Your task to perform on an android device: Open Reddit.com Image 0: 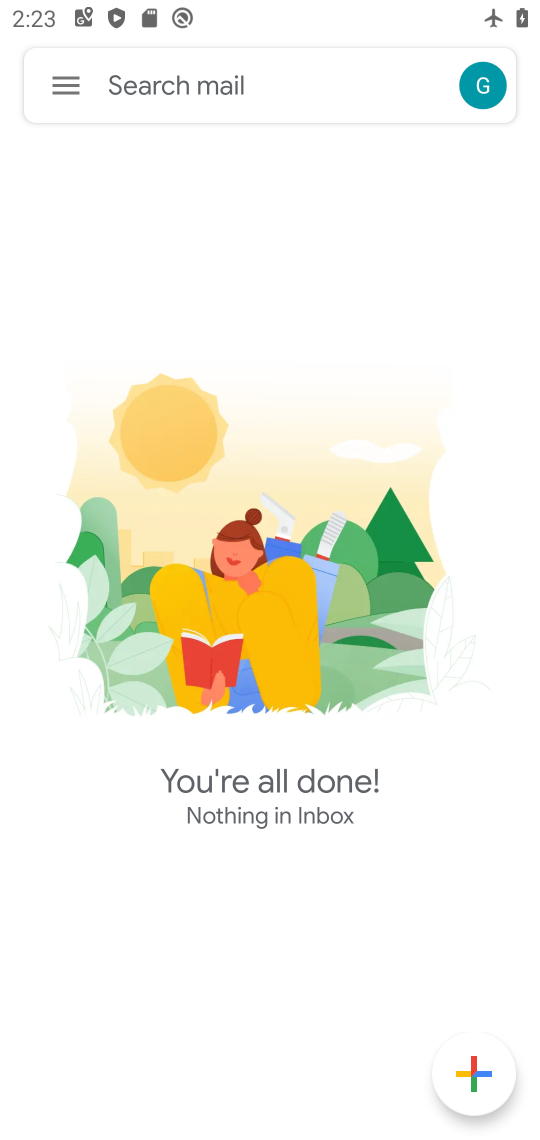
Step 0: press home button
Your task to perform on an android device: Open Reddit.com Image 1: 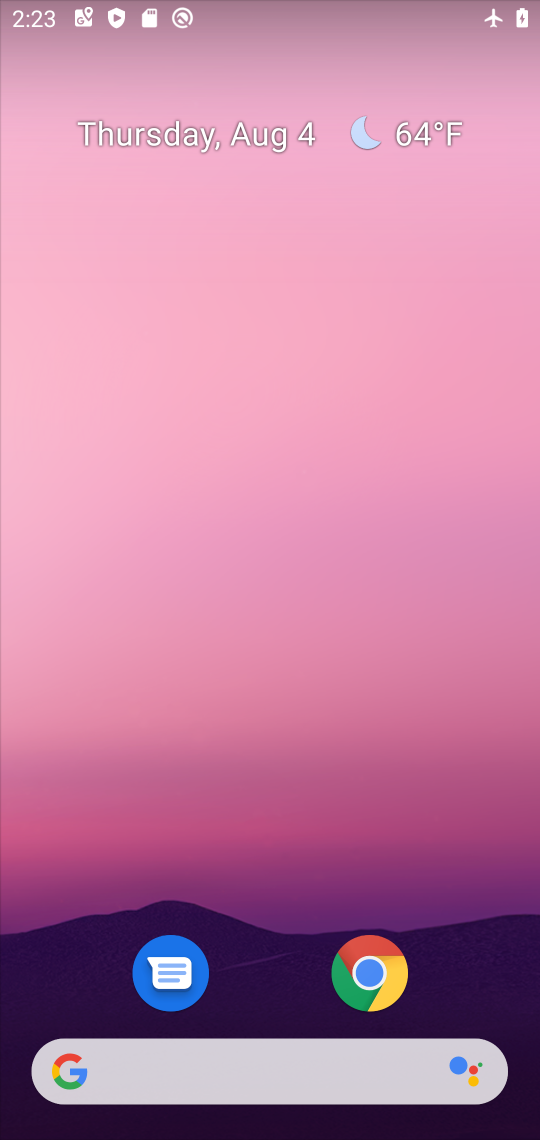
Step 1: click (407, 965)
Your task to perform on an android device: Open Reddit.com Image 2: 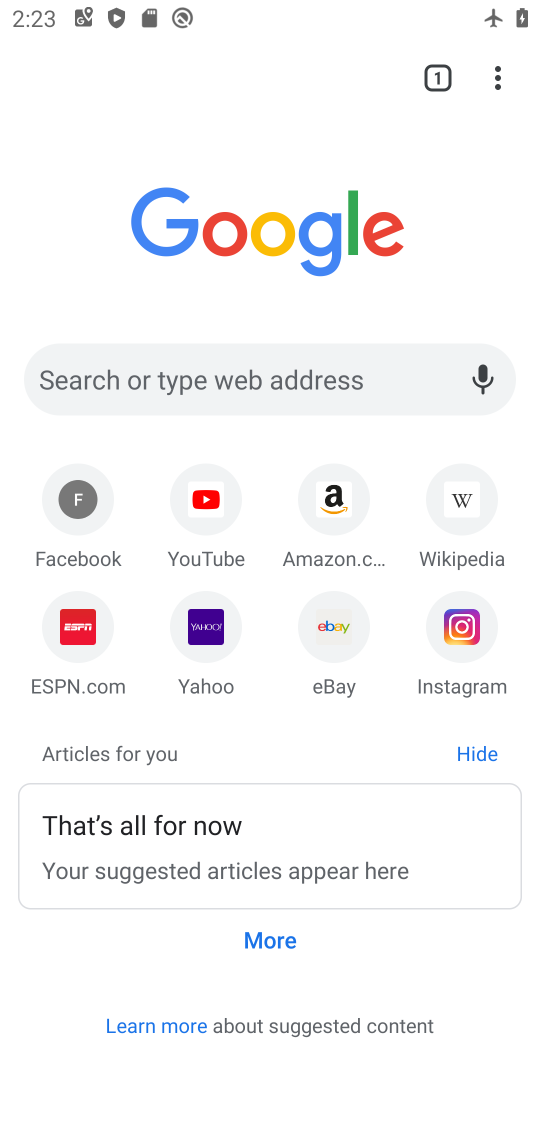
Step 2: click (247, 370)
Your task to perform on an android device: Open Reddit.com Image 3: 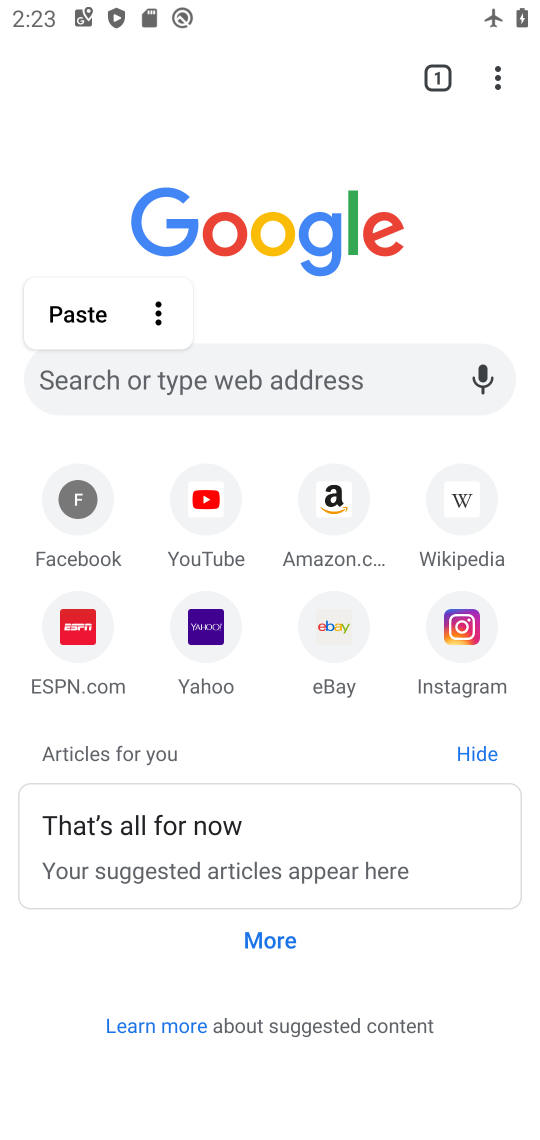
Step 3: type "Reddit.com"
Your task to perform on an android device: Open Reddit.com Image 4: 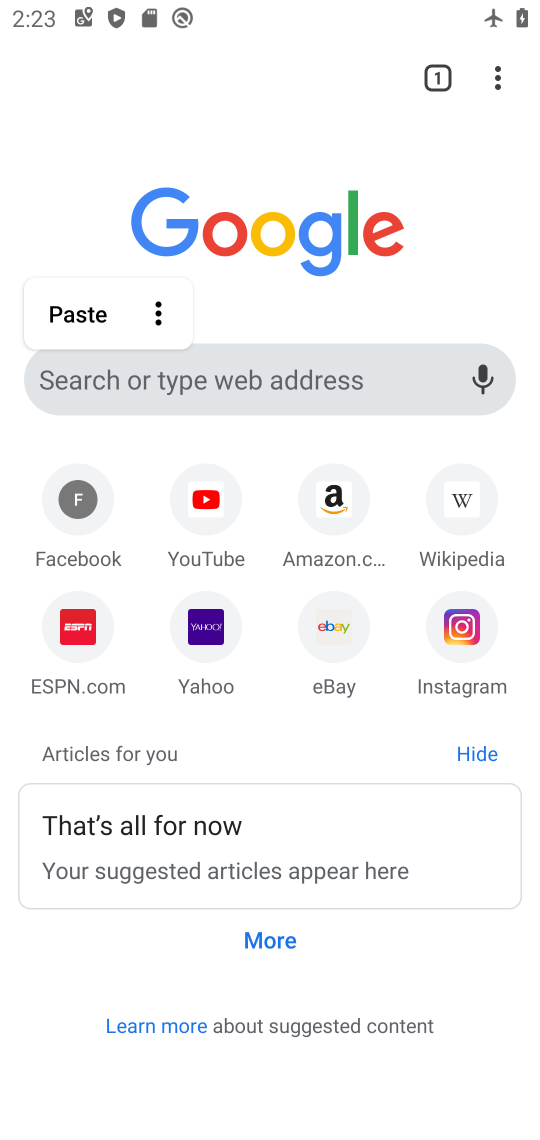
Step 4: click (146, 359)
Your task to perform on an android device: Open Reddit.com Image 5: 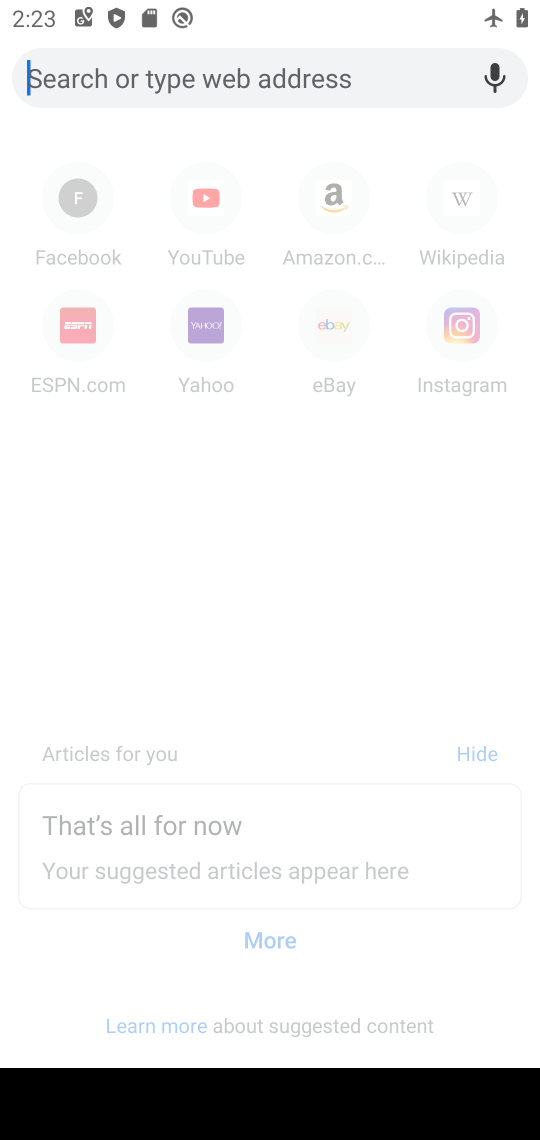
Step 5: type "Reddit.com"
Your task to perform on an android device: Open Reddit.com Image 6: 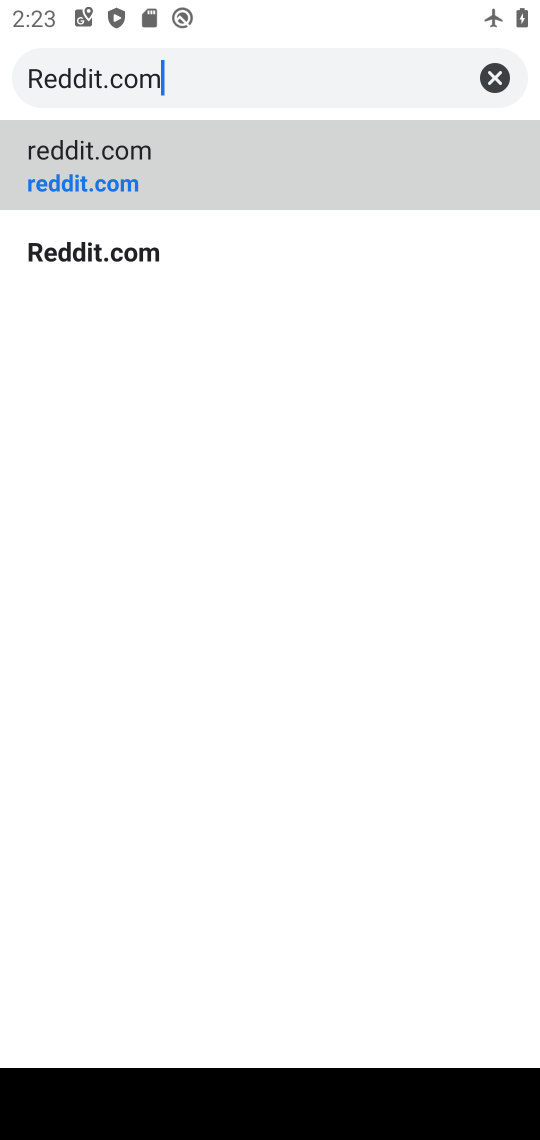
Step 6: type ""
Your task to perform on an android device: Open Reddit.com Image 7: 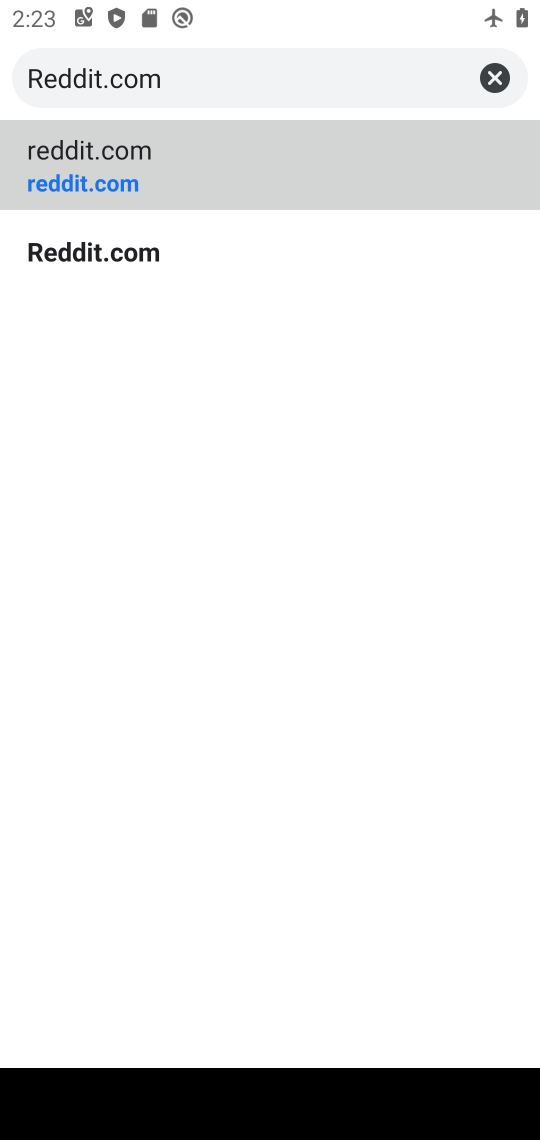
Step 7: click (241, 210)
Your task to perform on an android device: Open Reddit.com Image 8: 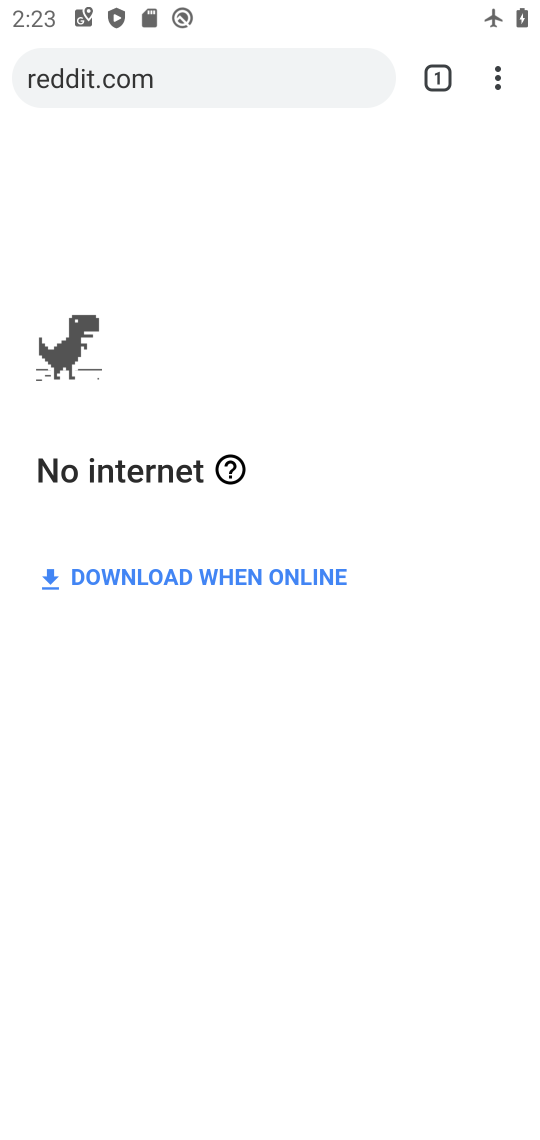
Step 8: task complete